Your task to perform on an android device: turn off wifi Image 0: 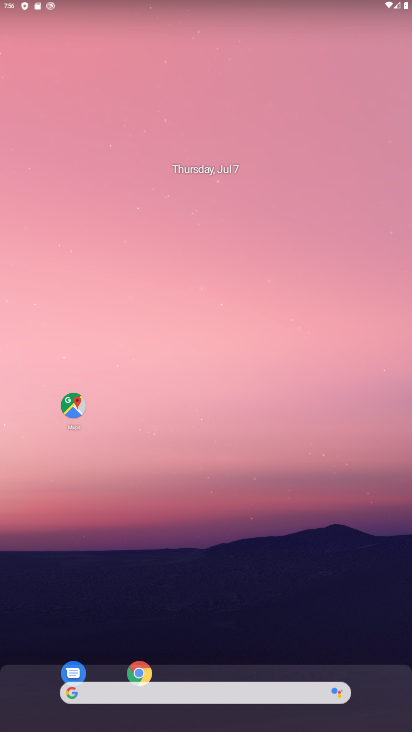
Step 0: drag from (169, 718) to (269, 156)
Your task to perform on an android device: turn off wifi Image 1: 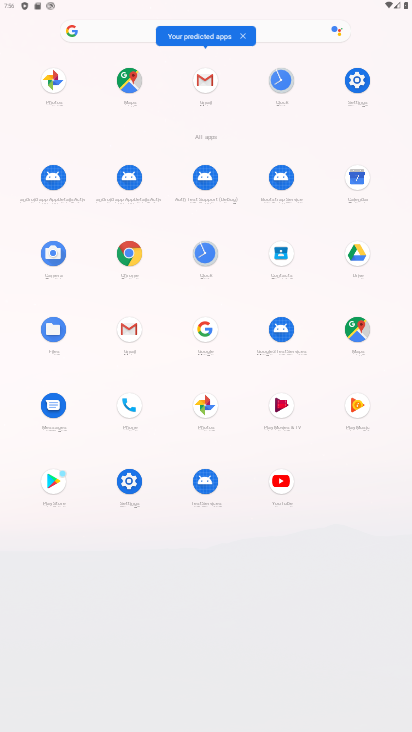
Step 1: click (143, 489)
Your task to perform on an android device: turn off wifi Image 2: 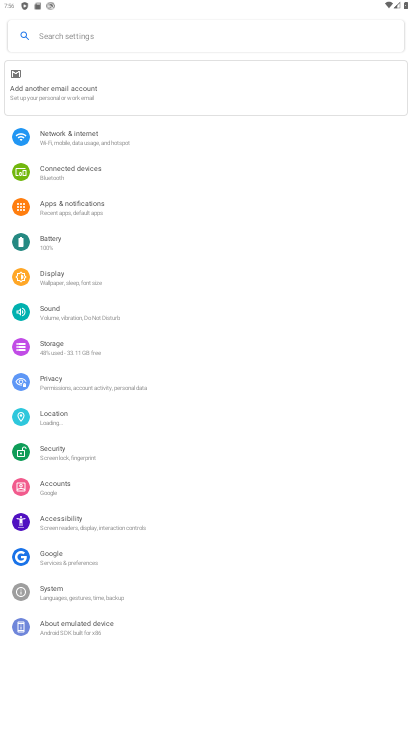
Step 2: click (102, 146)
Your task to perform on an android device: turn off wifi Image 3: 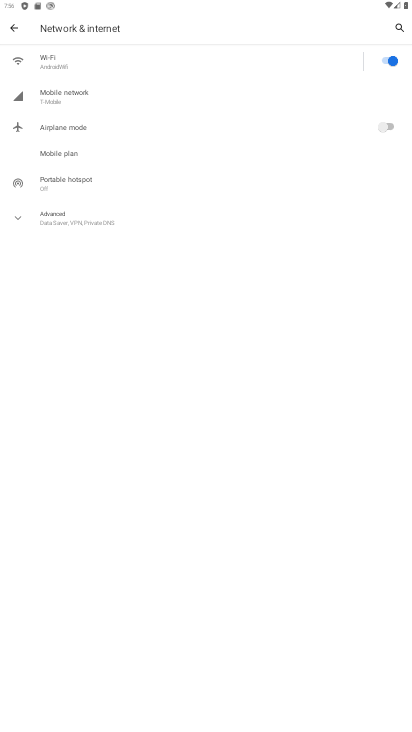
Step 3: click (393, 57)
Your task to perform on an android device: turn off wifi Image 4: 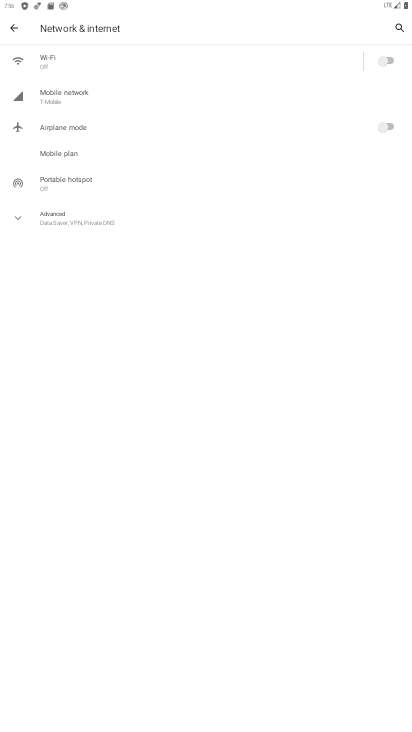
Step 4: task complete